Your task to perform on an android device: turn on improve location accuracy Image 0: 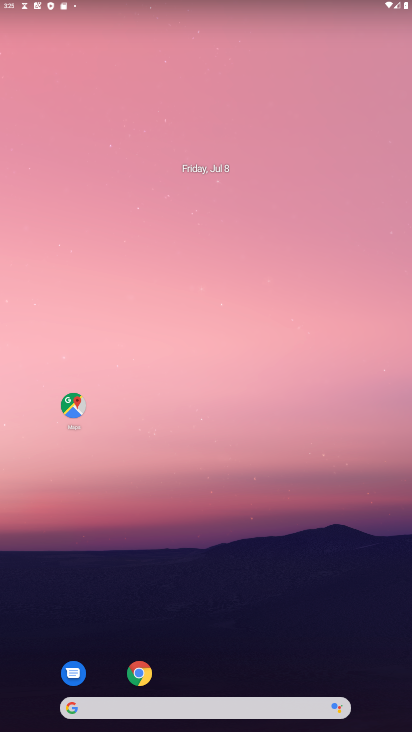
Step 0: drag from (187, 628) to (213, 23)
Your task to perform on an android device: turn on improve location accuracy Image 1: 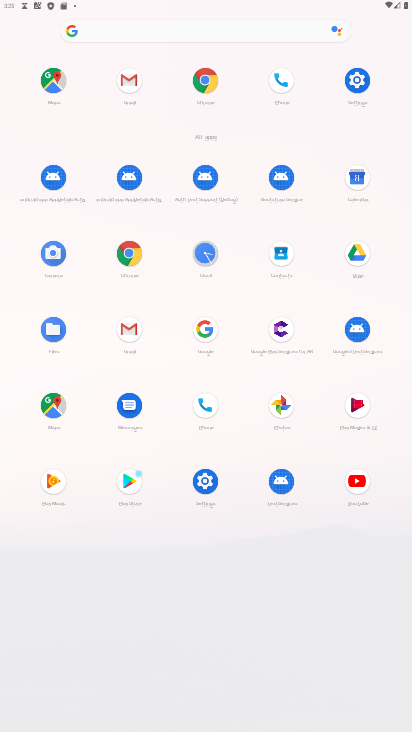
Step 1: click (199, 484)
Your task to perform on an android device: turn on improve location accuracy Image 2: 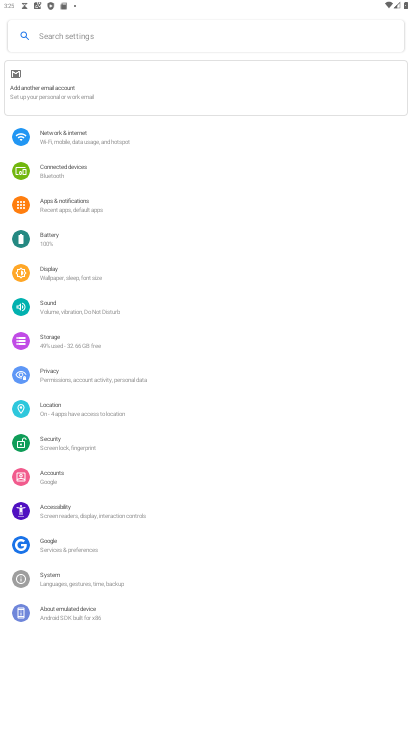
Step 2: click (99, 417)
Your task to perform on an android device: turn on improve location accuracy Image 3: 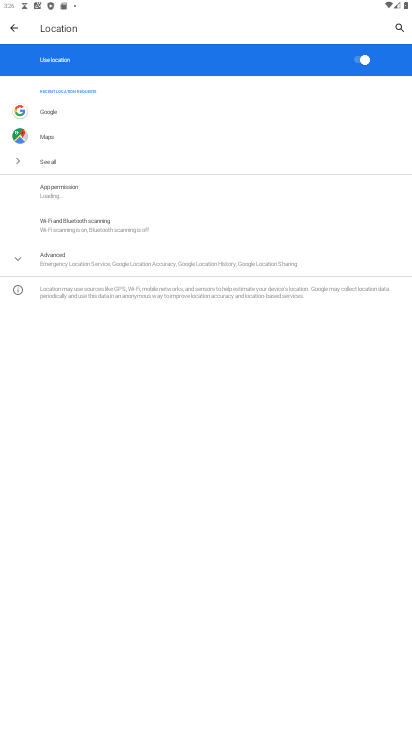
Step 3: click (127, 256)
Your task to perform on an android device: turn on improve location accuracy Image 4: 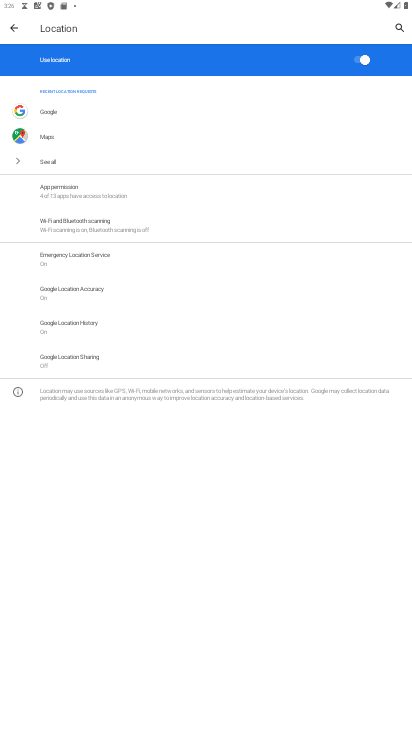
Step 4: click (91, 296)
Your task to perform on an android device: turn on improve location accuracy Image 5: 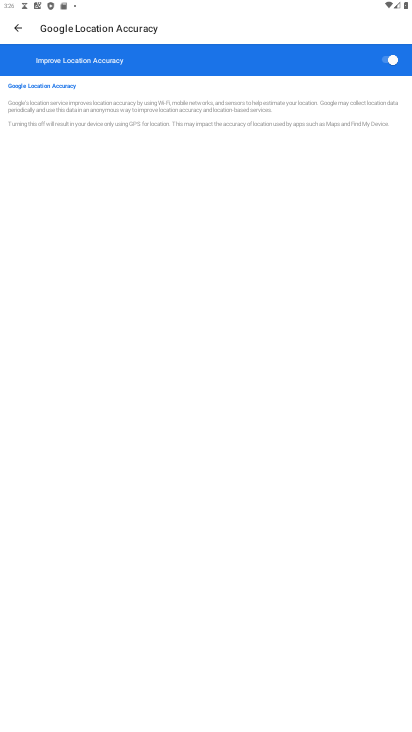
Step 5: task complete